Your task to perform on an android device: Search for vegetarian restaurants on Maps Image 0: 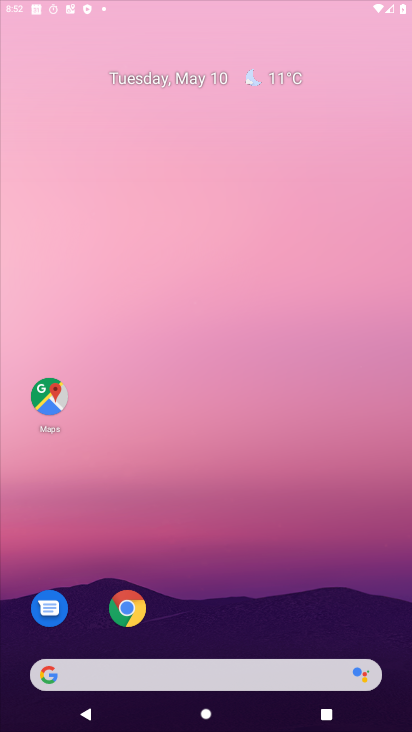
Step 0: click (221, 474)
Your task to perform on an android device: Search for vegetarian restaurants on Maps Image 1: 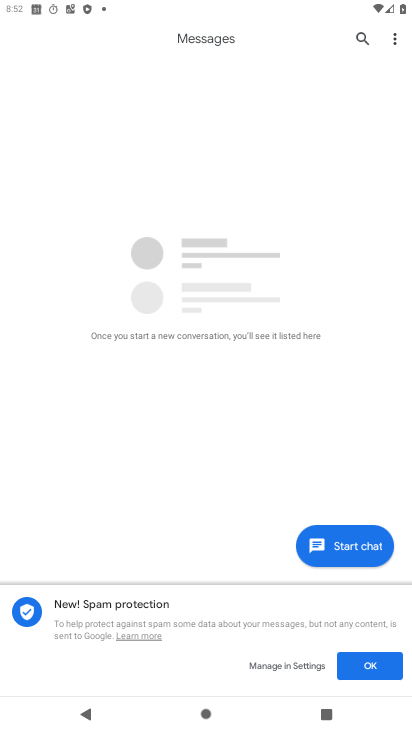
Step 1: press home button
Your task to perform on an android device: Search for vegetarian restaurants on Maps Image 2: 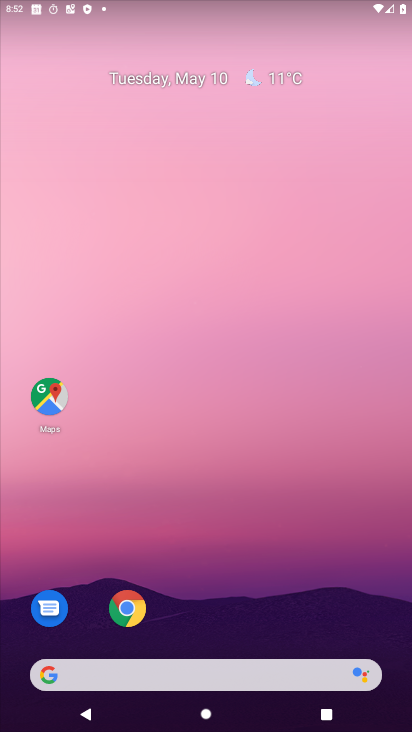
Step 2: click (43, 402)
Your task to perform on an android device: Search for vegetarian restaurants on Maps Image 3: 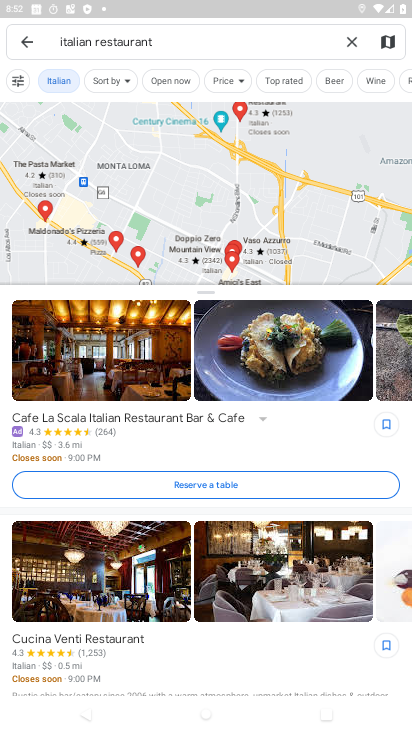
Step 3: click (354, 36)
Your task to perform on an android device: Search for vegetarian restaurants on Maps Image 4: 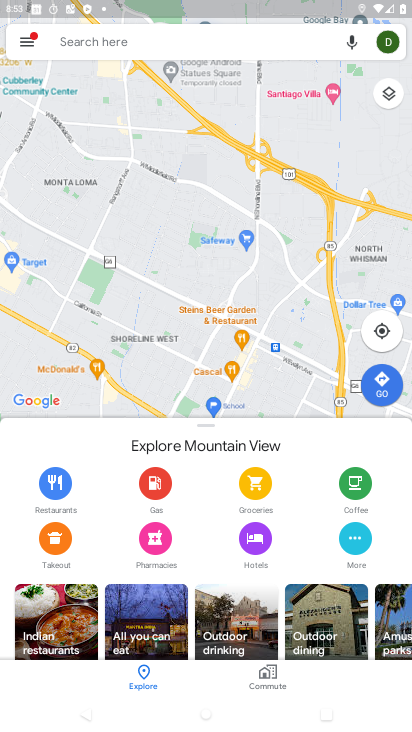
Step 4: click (215, 41)
Your task to perform on an android device: Search for vegetarian restaurants on Maps Image 5: 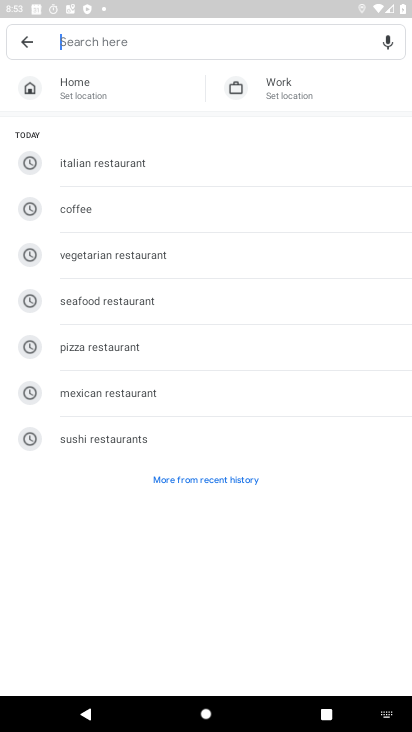
Step 5: click (155, 269)
Your task to perform on an android device: Search for vegetarian restaurants on Maps Image 6: 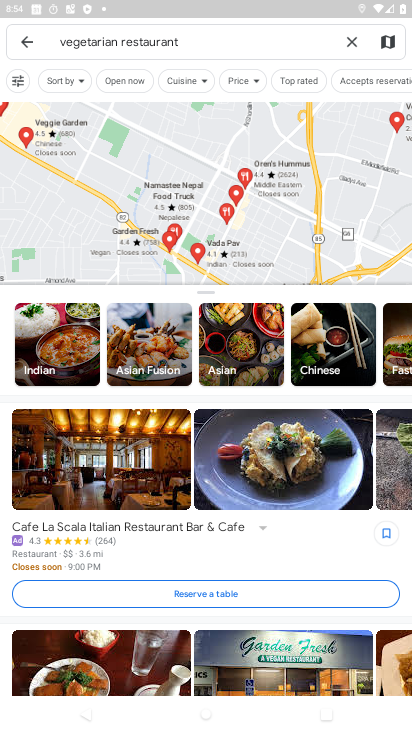
Step 6: task complete